Your task to perform on an android device: Add "corsair k70" to the cart on costco, then select checkout. Image 0: 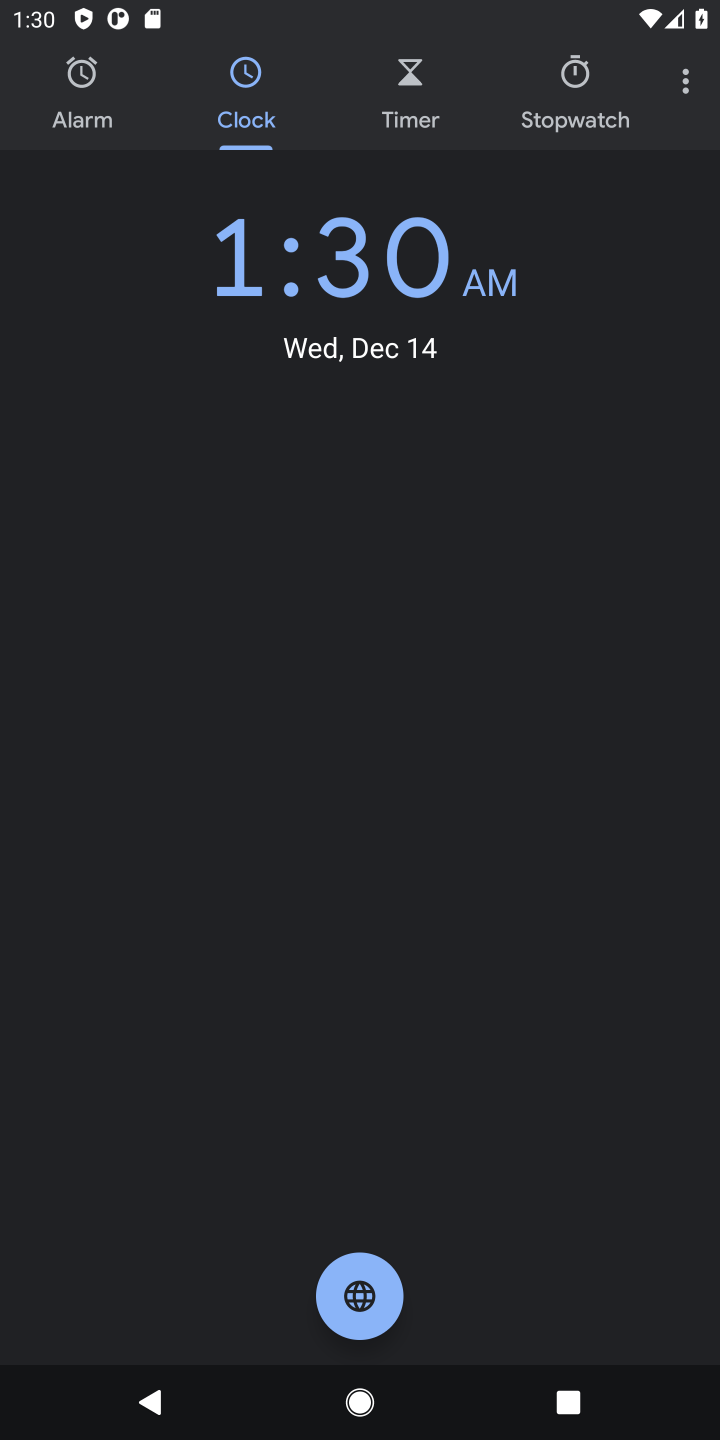
Step 0: press home button
Your task to perform on an android device: Add "corsair k70" to the cart on costco, then select checkout. Image 1: 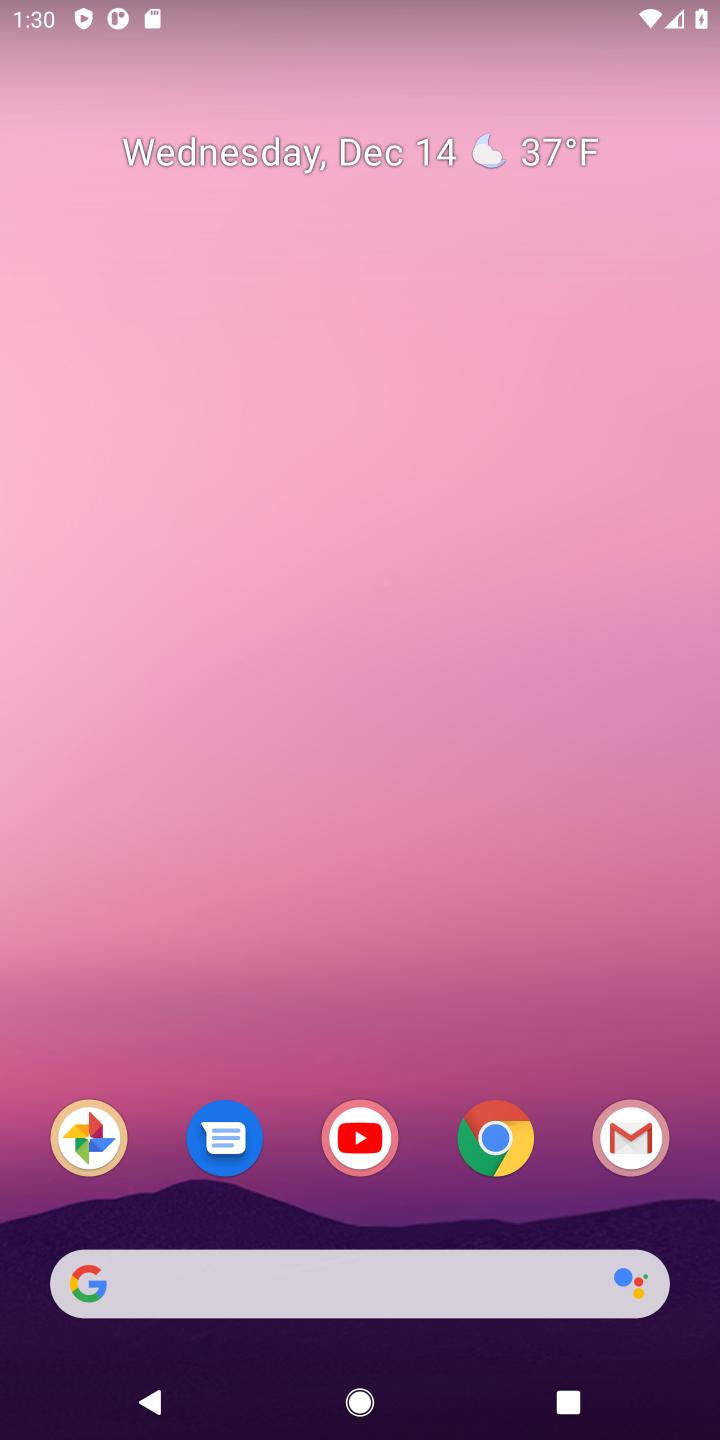
Step 1: click (517, 1141)
Your task to perform on an android device: Add "corsair k70" to the cart on costco, then select checkout. Image 2: 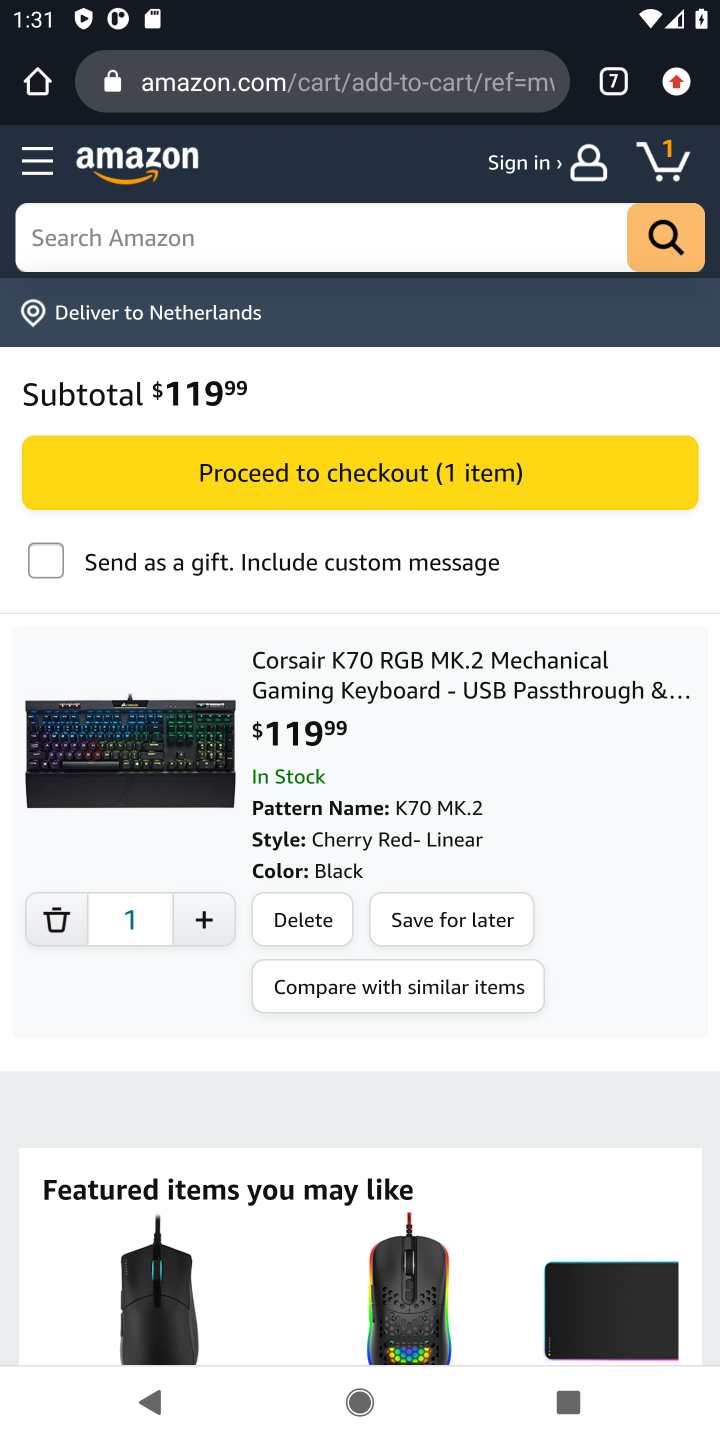
Step 2: click (612, 68)
Your task to perform on an android device: Add "corsair k70" to the cart on costco, then select checkout. Image 3: 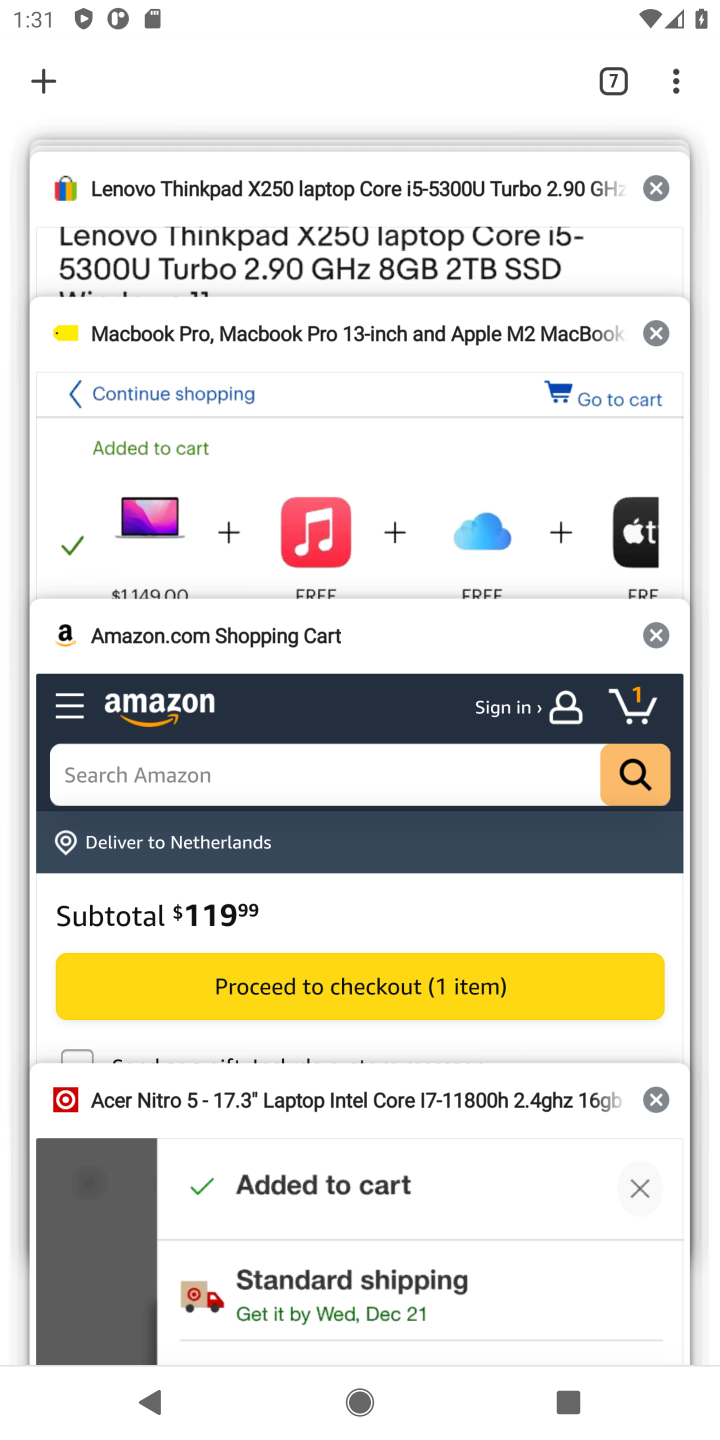
Step 3: drag from (350, 161) to (411, 470)
Your task to perform on an android device: Add "corsair k70" to the cart on costco, then select checkout. Image 4: 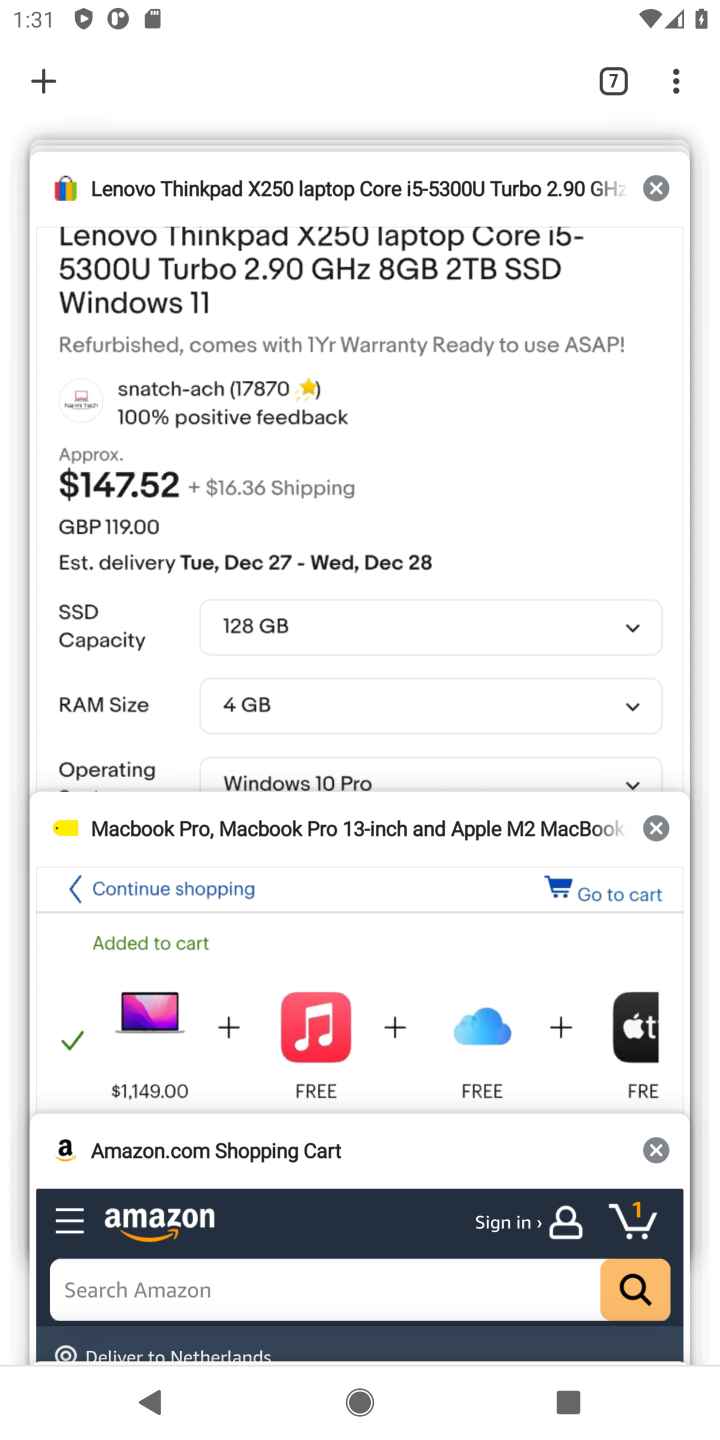
Step 4: drag from (384, 181) to (450, 723)
Your task to perform on an android device: Add "corsair k70" to the cart on costco, then select checkout. Image 5: 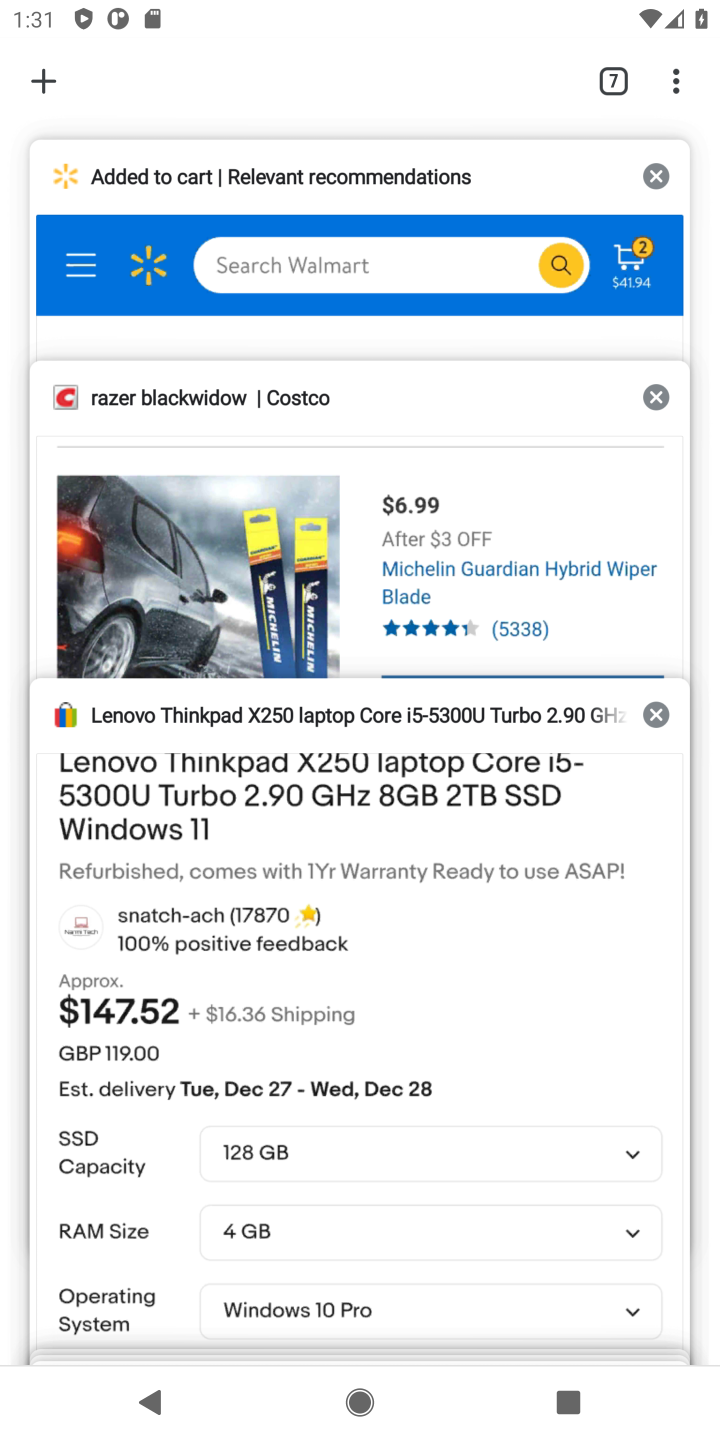
Step 5: click (406, 496)
Your task to perform on an android device: Add "corsair k70" to the cart on costco, then select checkout. Image 6: 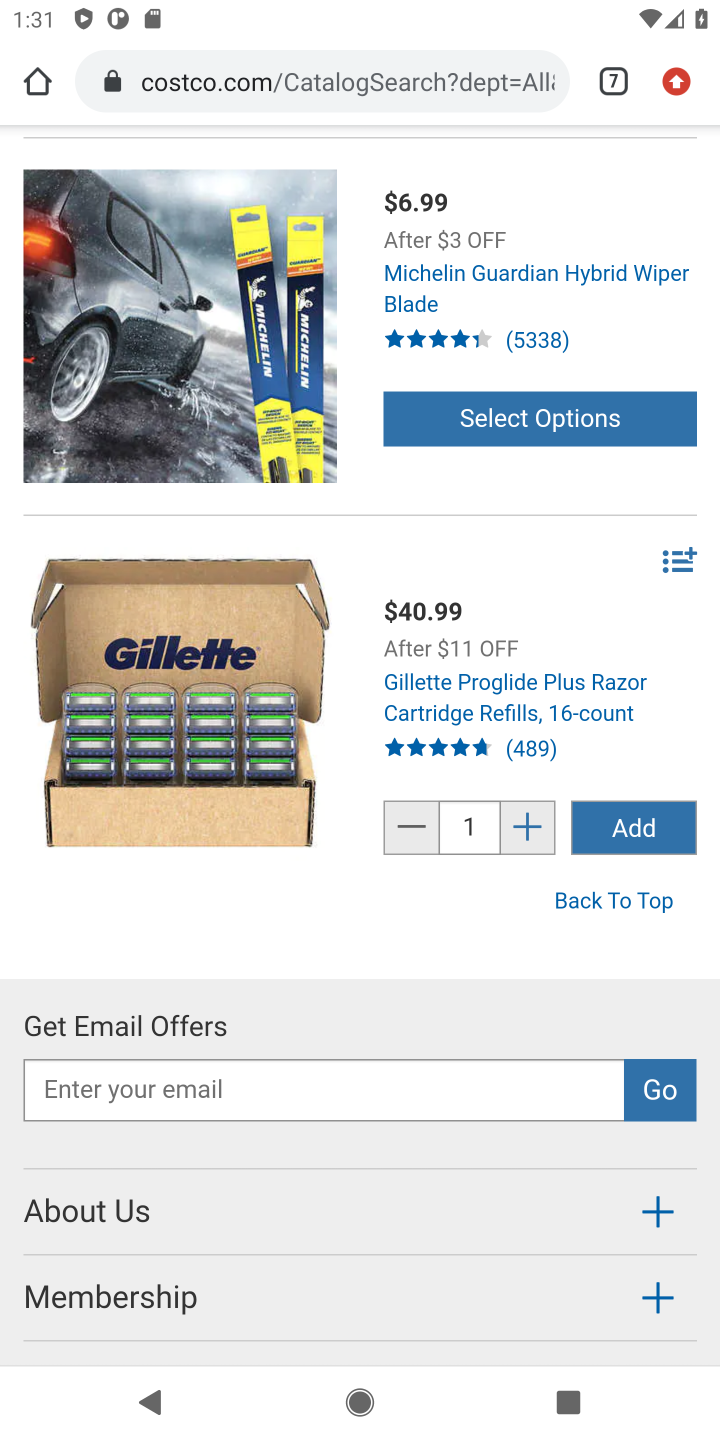
Step 6: drag from (478, 165) to (280, 858)
Your task to perform on an android device: Add "corsair k70" to the cart on costco, then select checkout. Image 7: 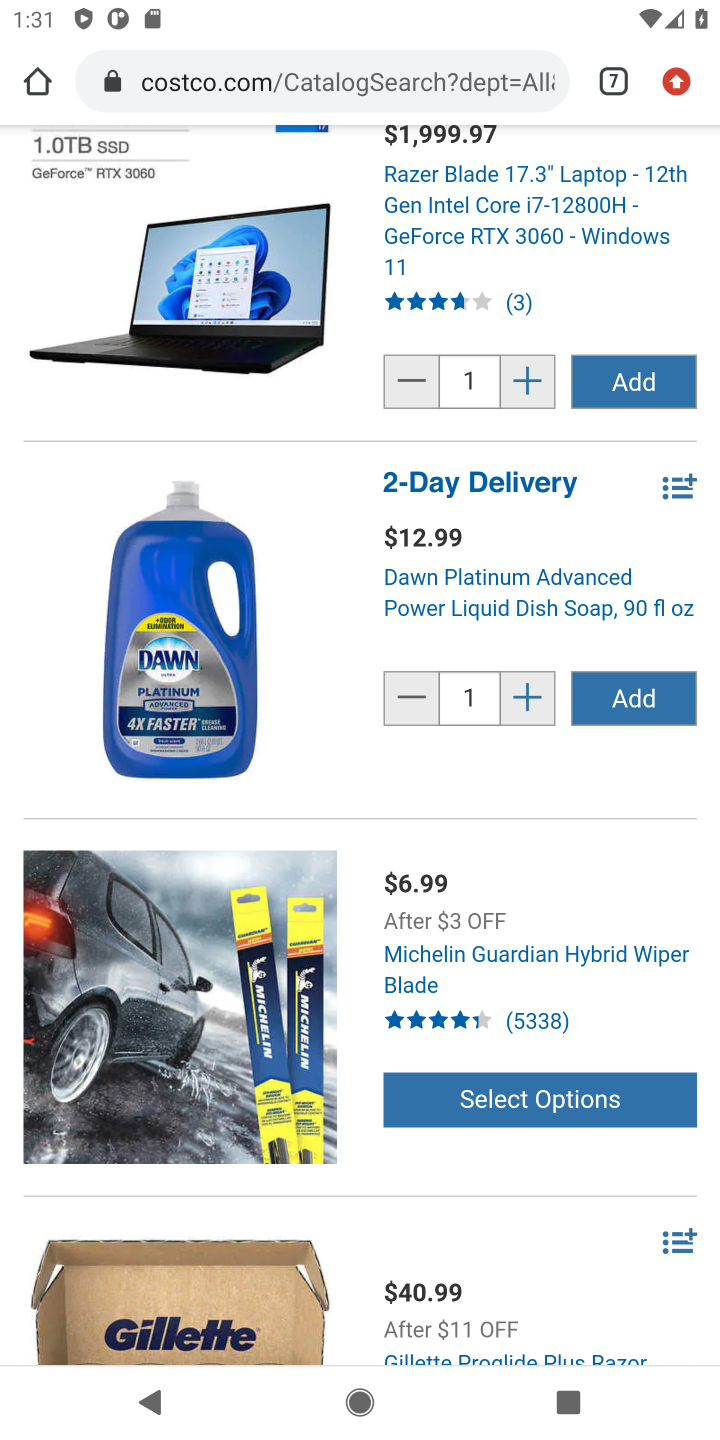
Step 7: click (308, 1008)
Your task to perform on an android device: Add "corsair k70" to the cart on costco, then select checkout. Image 8: 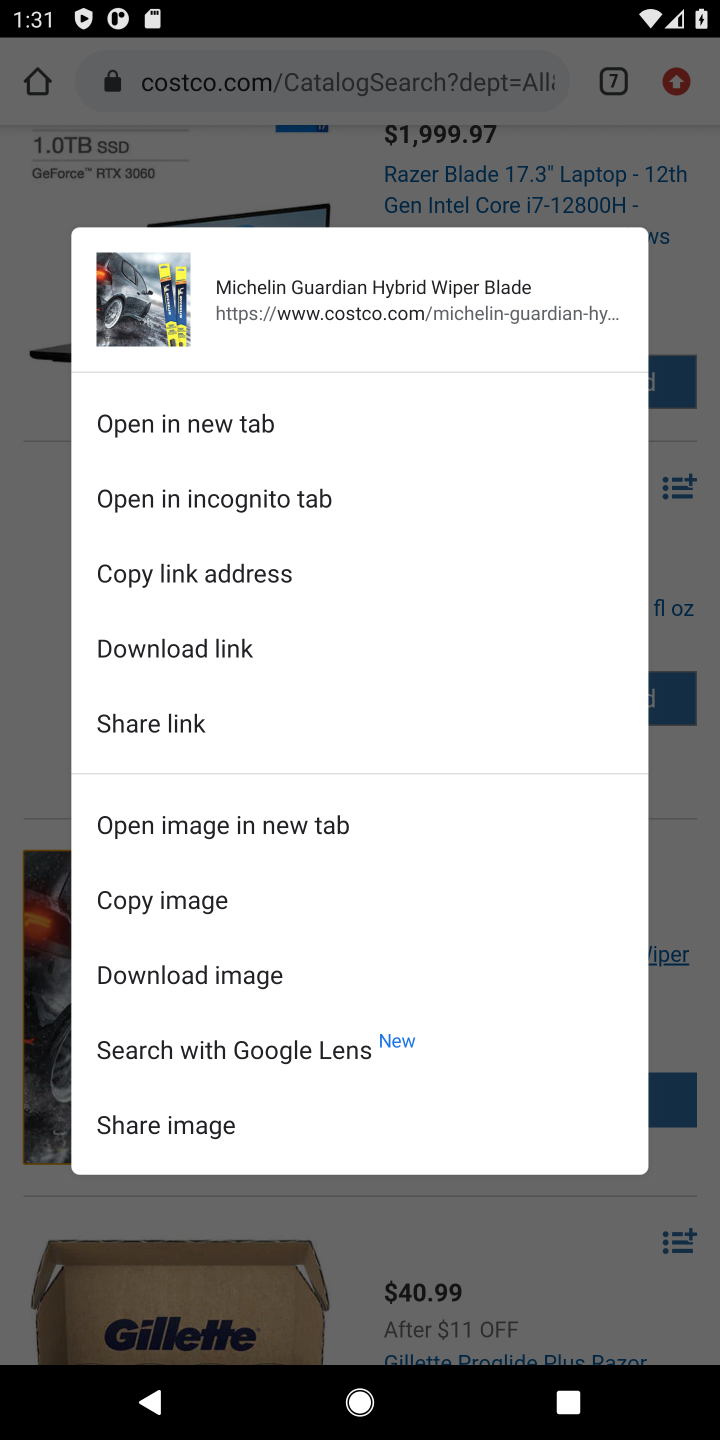
Step 8: click (683, 340)
Your task to perform on an android device: Add "corsair k70" to the cart on costco, then select checkout. Image 9: 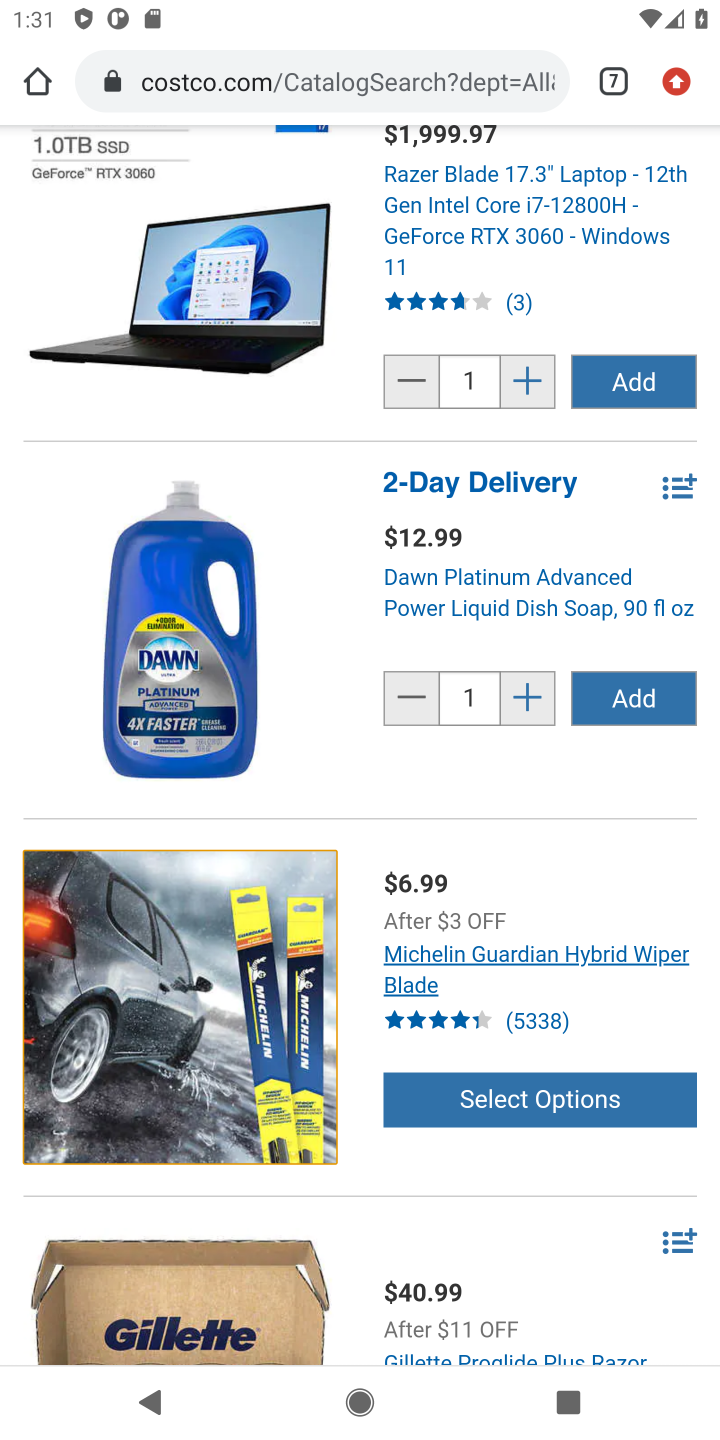
Step 9: drag from (374, 187) to (146, 963)
Your task to perform on an android device: Add "corsair k70" to the cart on costco, then select checkout. Image 10: 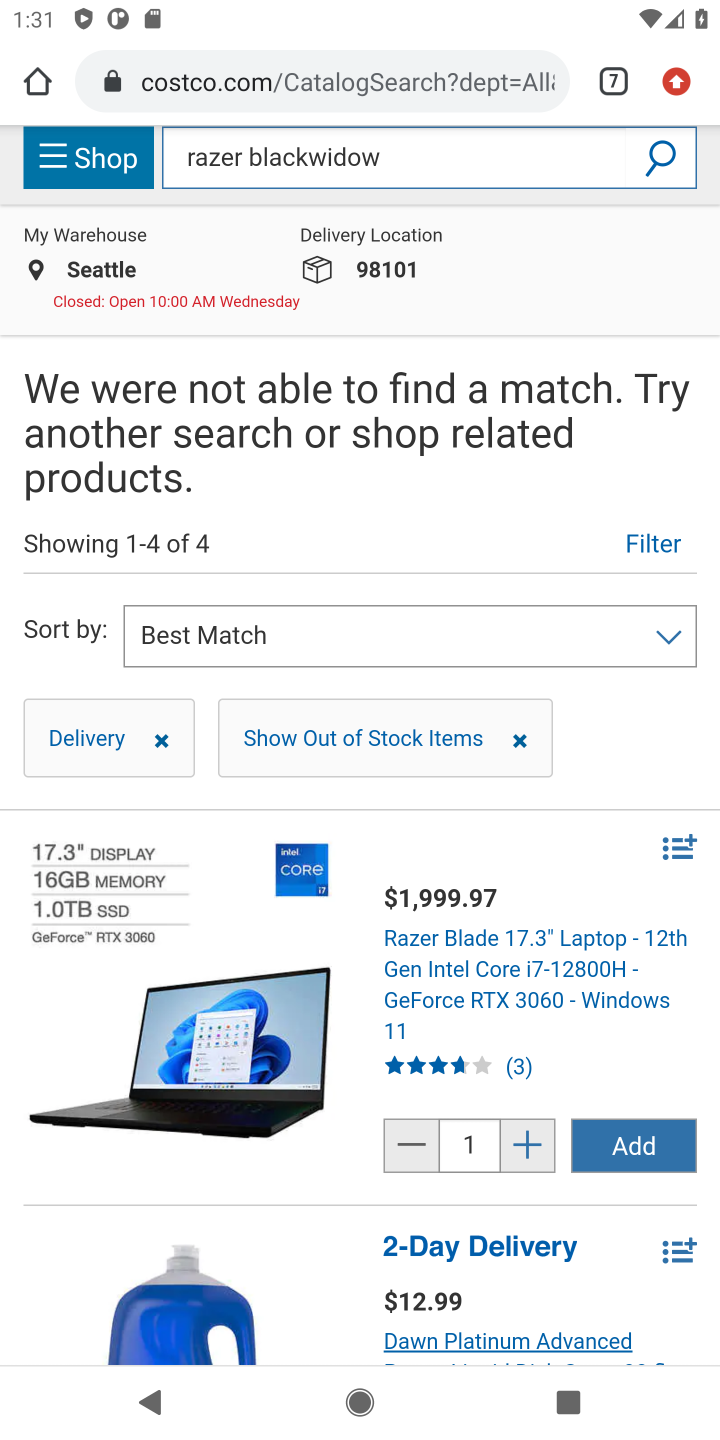
Step 10: click (429, 169)
Your task to perform on an android device: Add "corsair k70" to the cart on costco, then select checkout. Image 11: 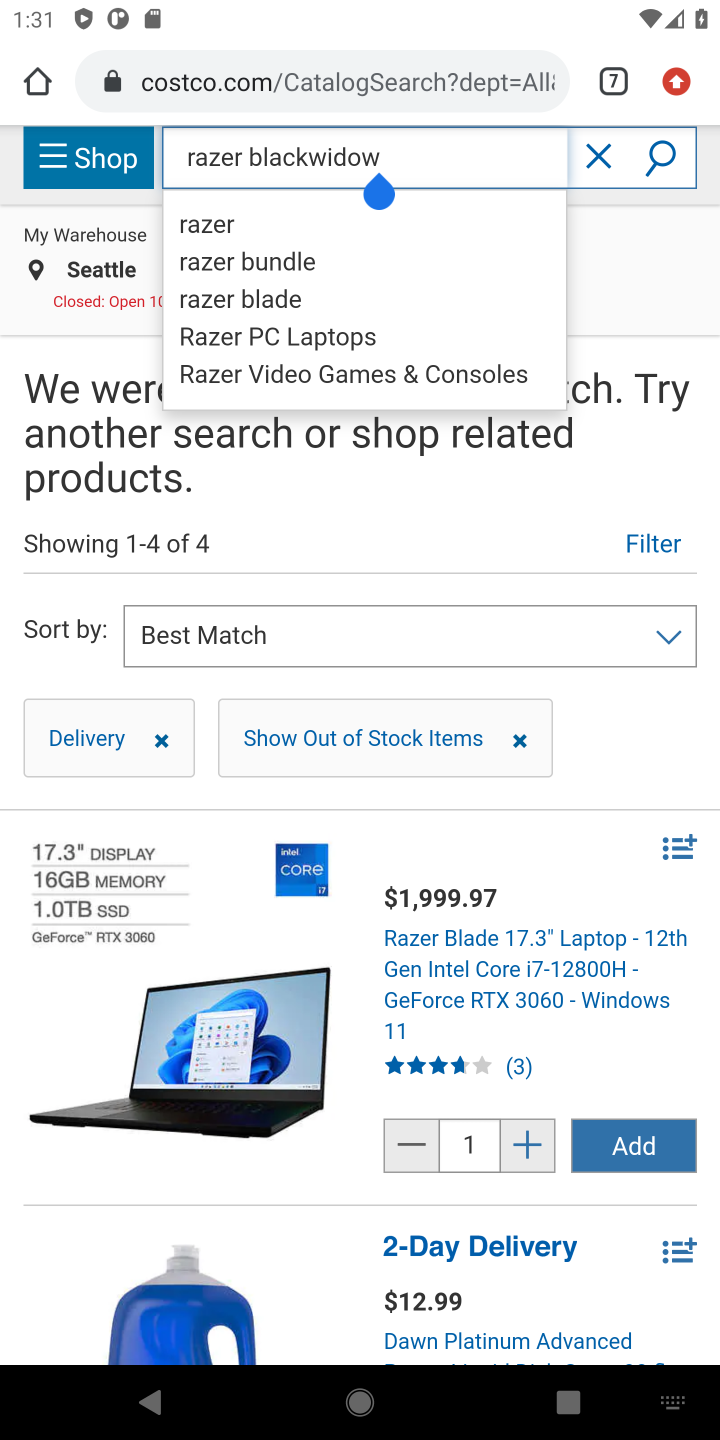
Step 11: click (594, 154)
Your task to perform on an android device: Add "corsair k70" to the cart on costco, then select checkout. Image 12: 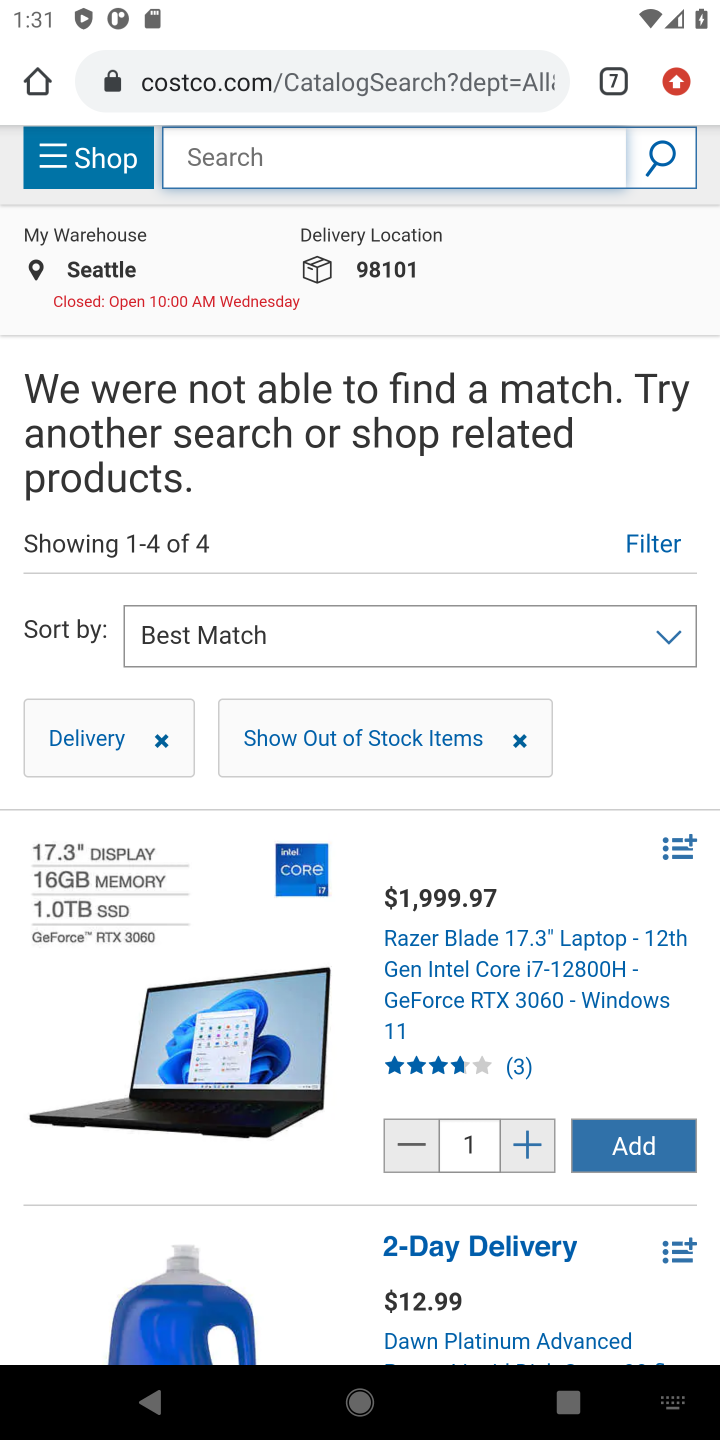
Step 12: type "corsair k70"
Your task to perform on an android device: Add "corsair k70" to the cart on costco, then select checkout. Image 13: 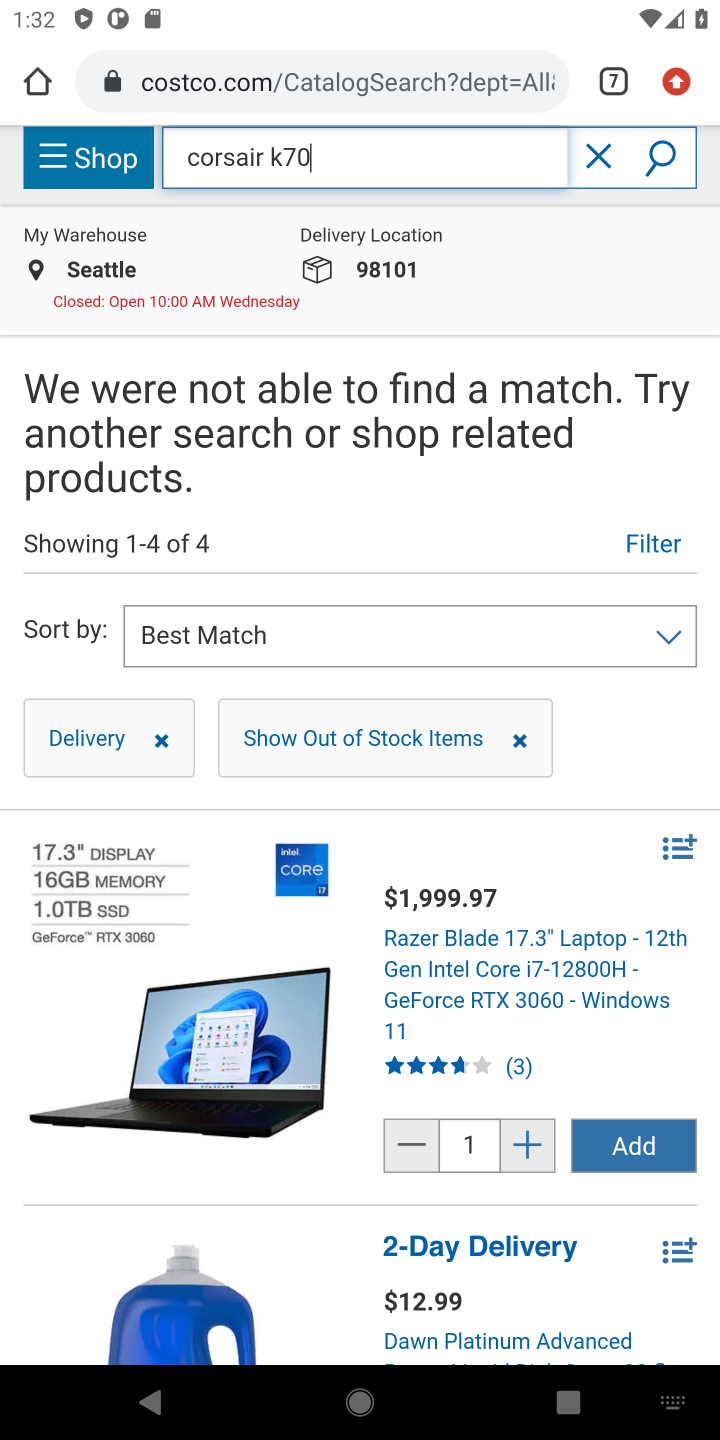
Step 13: click (682, 149)
Your task to perform on an android device: Add "corsair k70" to the cart on costco, then select checkout. Image 14: 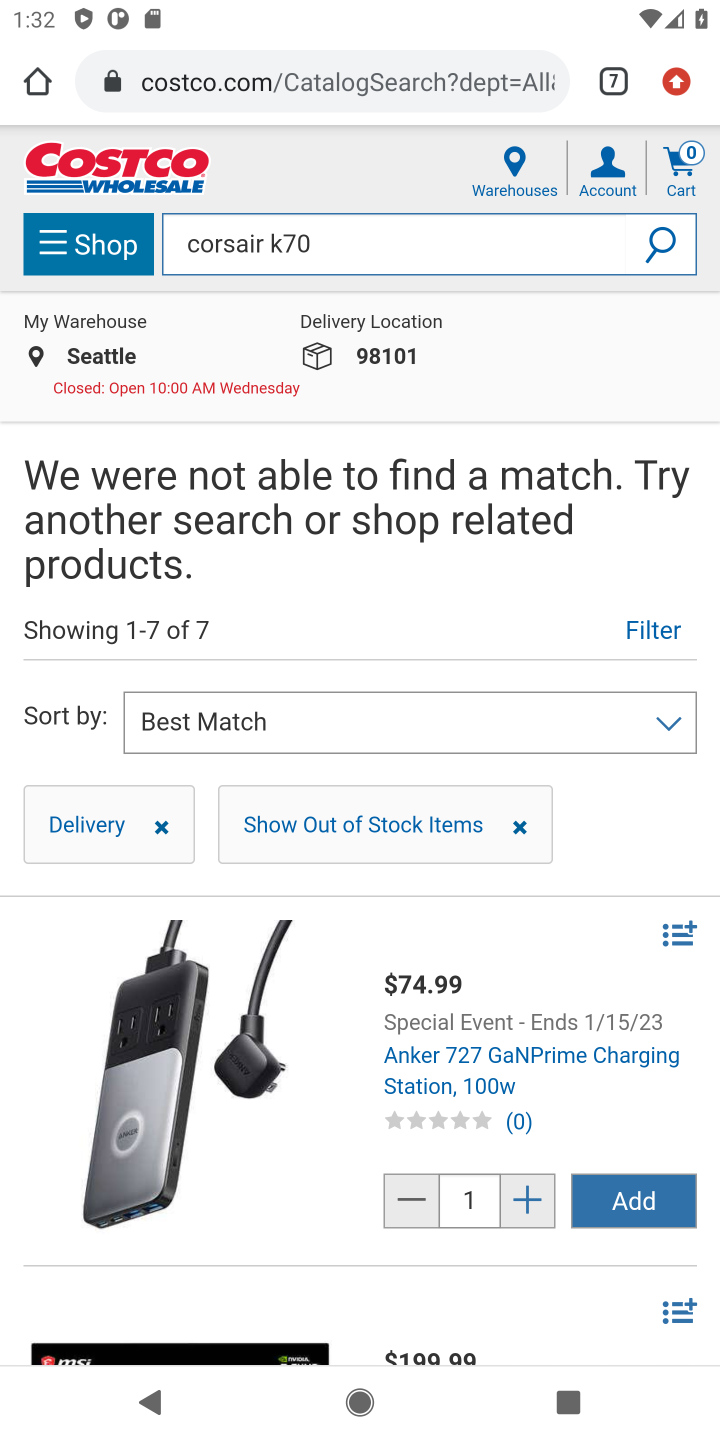
Step 14: task complete